Your task to perform on an android device: Show me the alarms in the clock app Image 0: 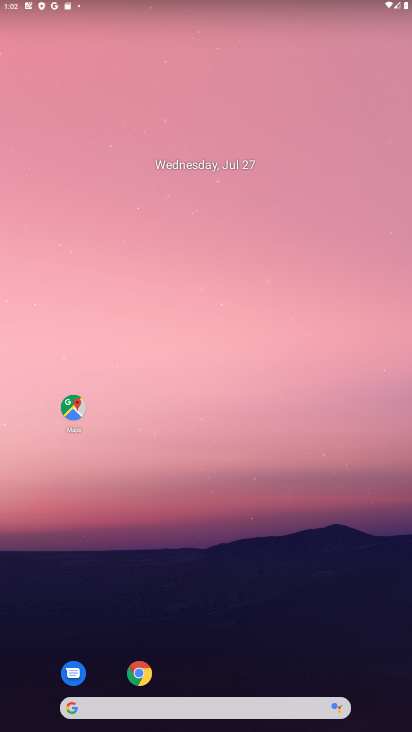
Step 0: drag from (233, 670) to (207, 110)
Your task to perform on an android device: Show me the alarms in the clock app Image 1: 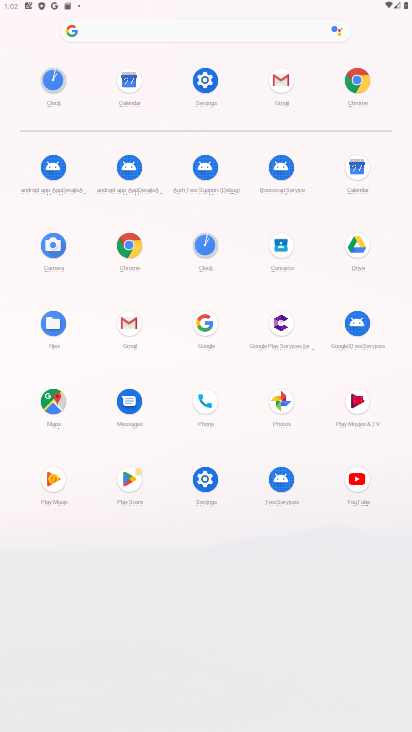
Step 1: click (203, 248)
Your task to perform on an android device: Show me the alarms in the clock app Image 2: 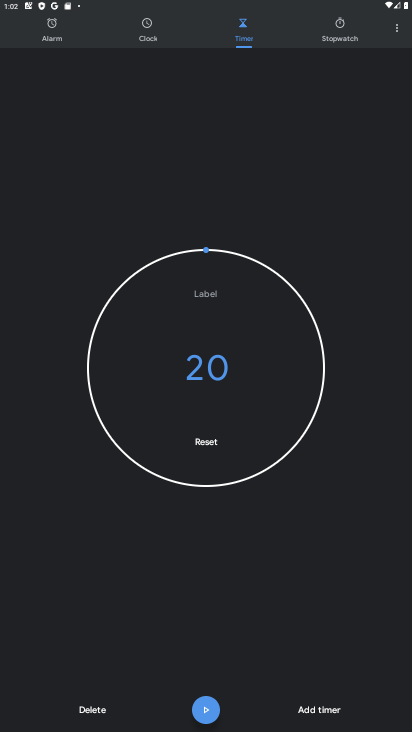
Step 2: click (50, 35)
Your task to perform on an android device: Show me the alarms in the clock app Image 3: 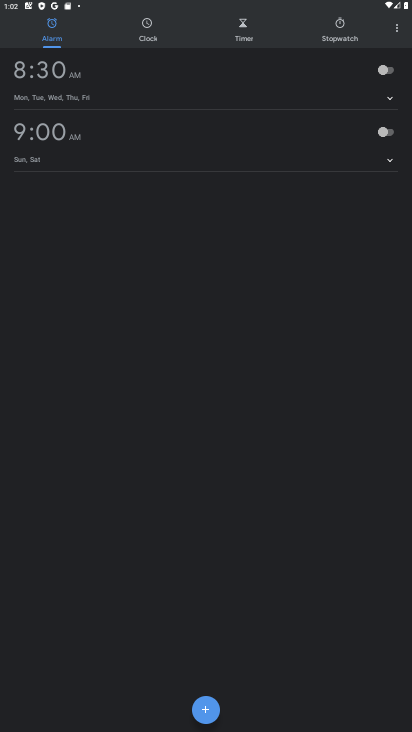
Step 3: task complete